Your task to perform on an android device: Open calendar and show me the fourth week of next month Image 0: 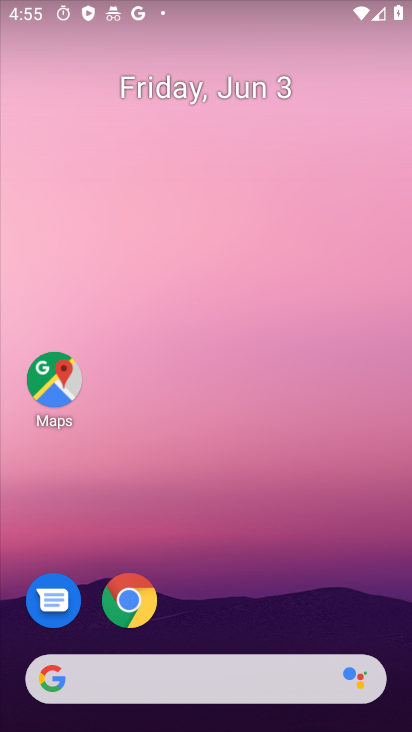
Step 0: drag from (388, 651) to (349, 133)
Your task to perform on an android device: Open calendar and show me the fourth week of next month Image 1: 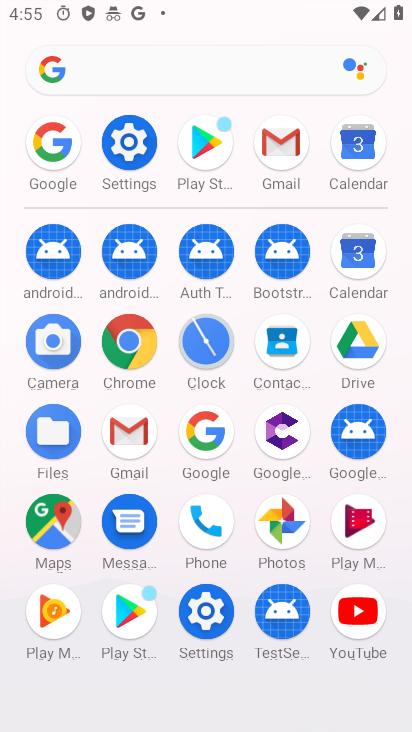
Step 1: click (337, 255)
Your task to perform on an android device: Open calendar and show me the fourth week of next month Image 2: 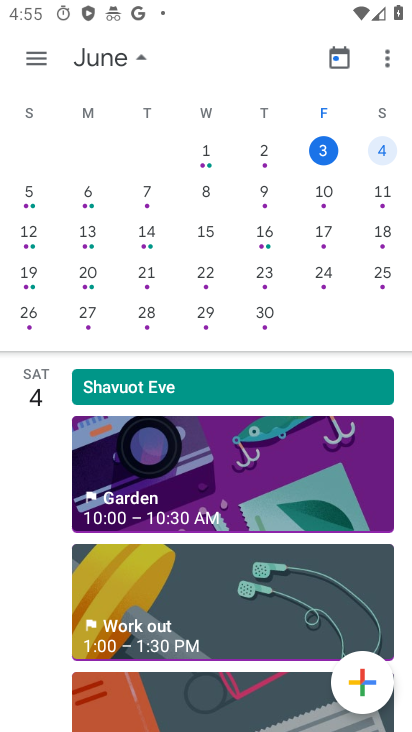
Step 2: click (138, 52)
Your task to perform on an android device: Open calendar and show me the fourth week of next month Image 3: 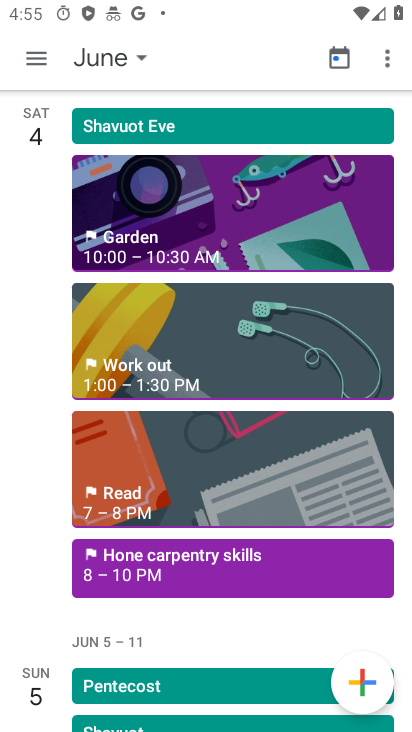
Step 3: click (133, 58)
Your task to perform on an android device: Open calendar and show me the fourth week of next month Image 4: 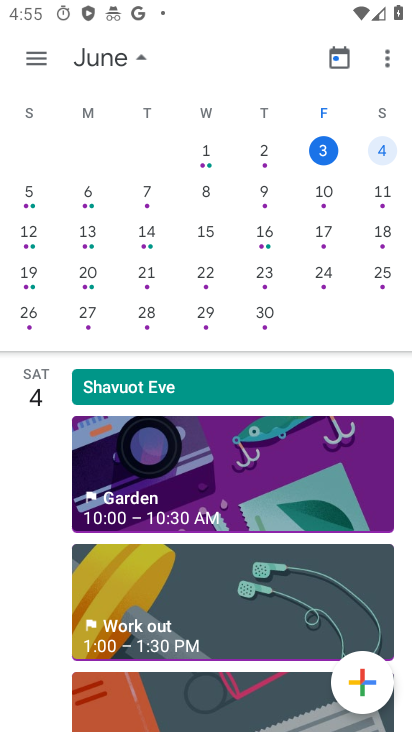
Step 4: drag from (390, 222) to (58, 178)
Your task to perform on an android device: Open calendar and show me the fourth week of next month Image 5: 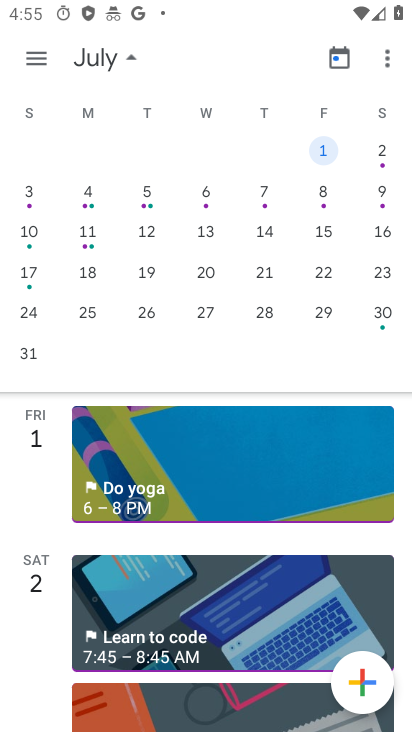
Step 5: click (386, 273)
Your task to perform on an android device: Open calendar and show me the fourth week of next month Image 6: 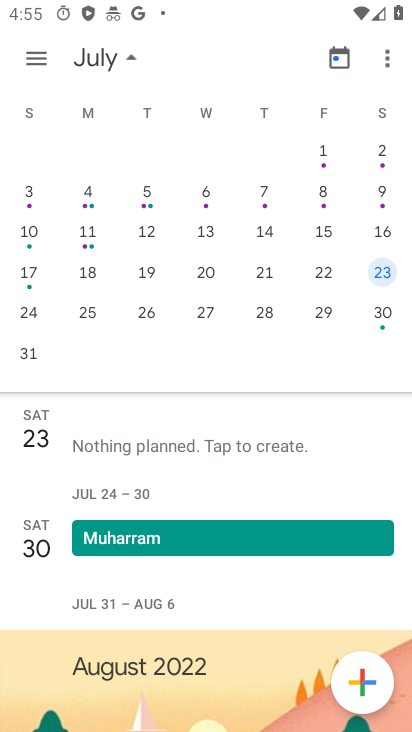
Step 6: click (33, 47)
Your task to perform on an android device: Open calendar and show me the fourth week of next month Image 7: 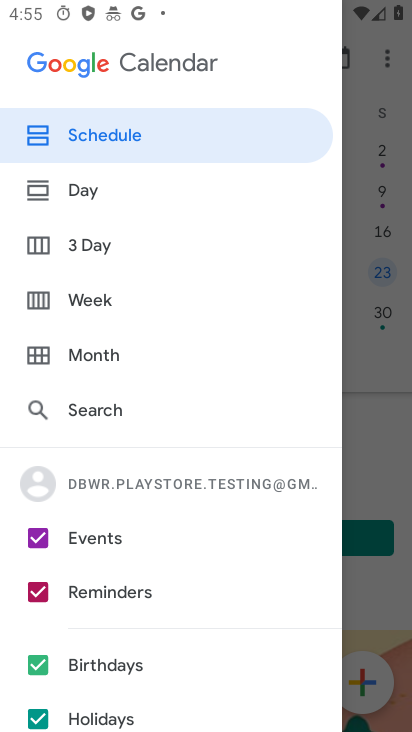
Step 7: click (75, 299)
Your task to perform on an android device: Open calendar and show me the fourth week of next month Image 8: 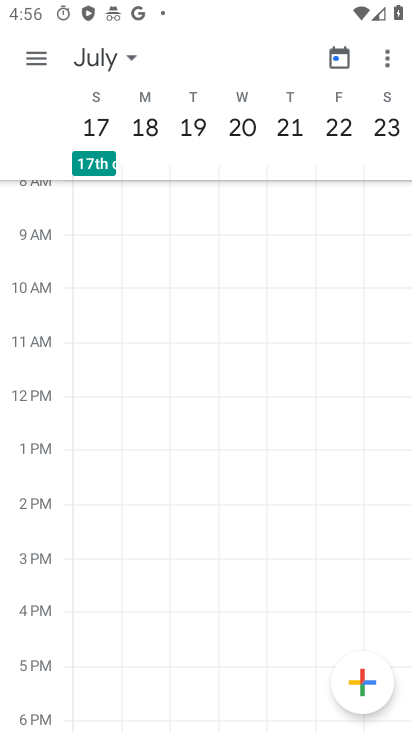
Step 8: click (44, 46)
Your task to perform on an android device: Open calendar and show me the fourth week of next month Image 9: 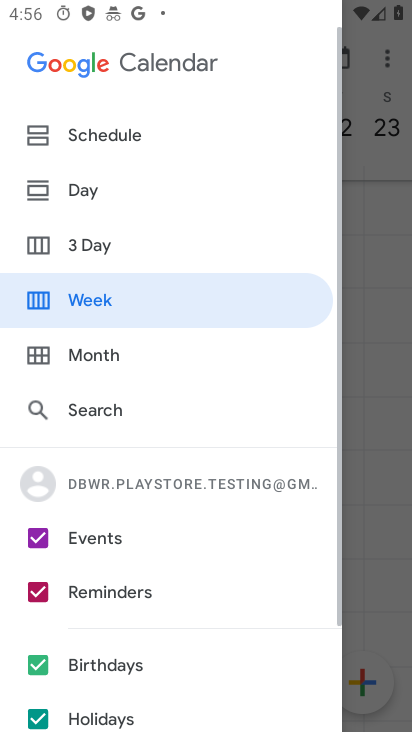
Step 9: click (67, 135)
Your task to perform on an android device: Open calendar and show me the fourth week of next month Image 10: 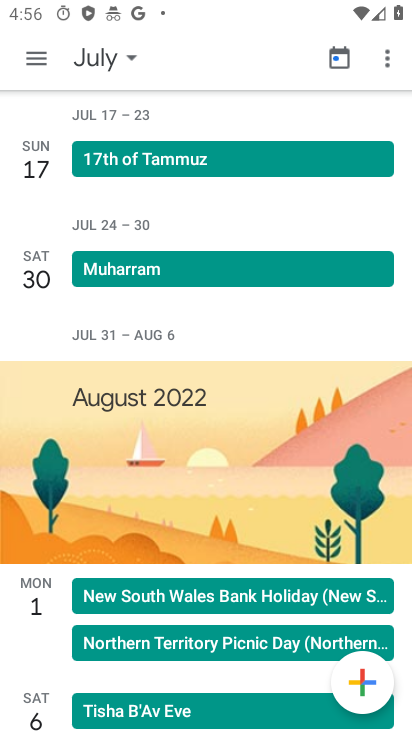
Step 10: task complete